Your task to perform on an android device: Open calendar and show me the fourth week of next month Image 0: 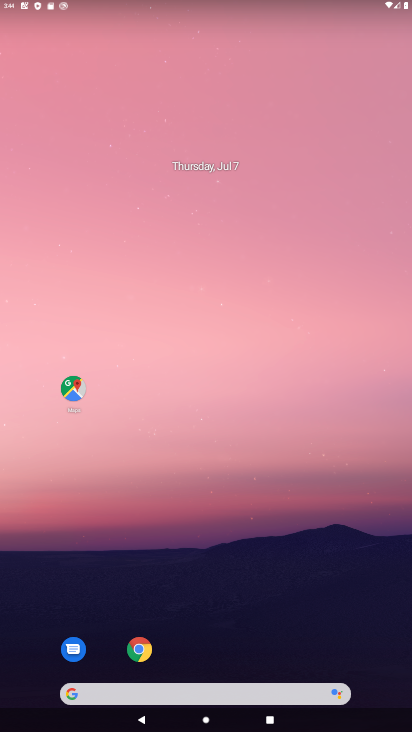
Step 0: drag from (370, 698) to (254, 0)
Your task to perform on an android device: Open calendar and show me the fourth week of next month Image 1: 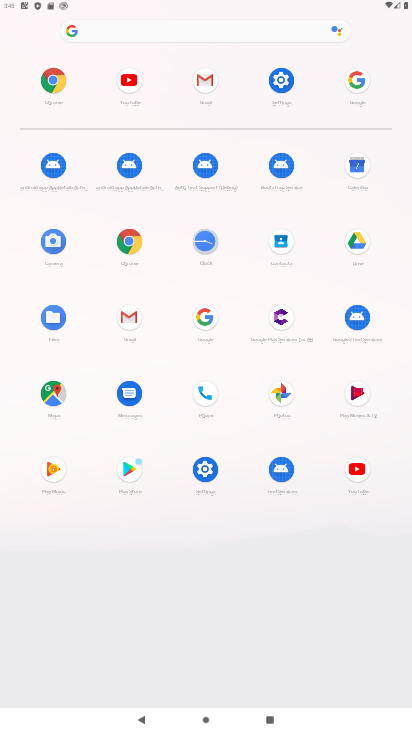
Step 1: click (343, 168)
Your task to perform on an android device: Open calendar and show me the fourth week of next month Image 2: 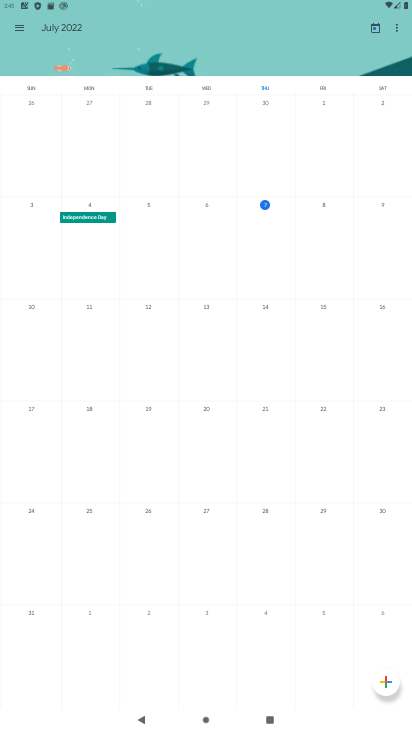
Step 2: drag from (264, 600) to (242, 148)
Your task to perform on an android device: Open calendar and show me the fourth week of next month Image 3: 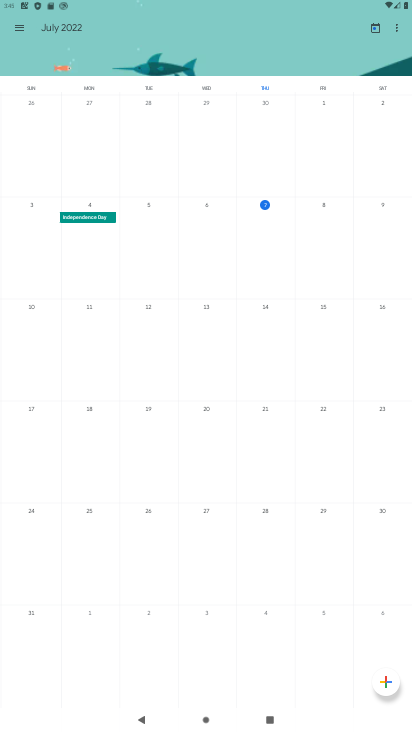
Step 3: drag from (341, 179) to (17, 234)
Your task to perform on an android device: Open calendar and show me the fourth week of next month Image 4: 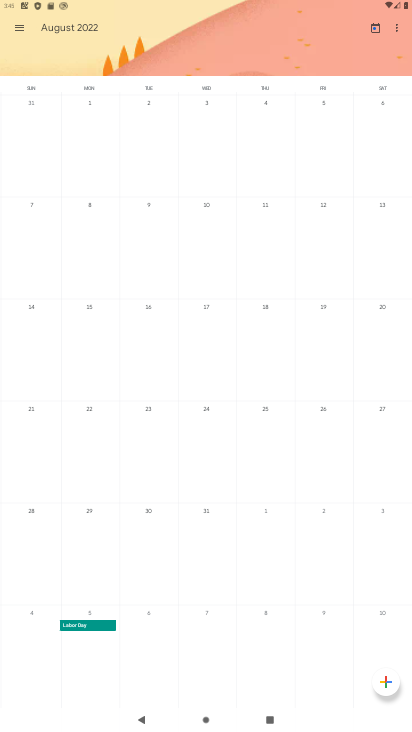
Step 4: click (28, 518)
Your task to perform on an android device: Open calendar and show me the fourth week of next month Image 5: 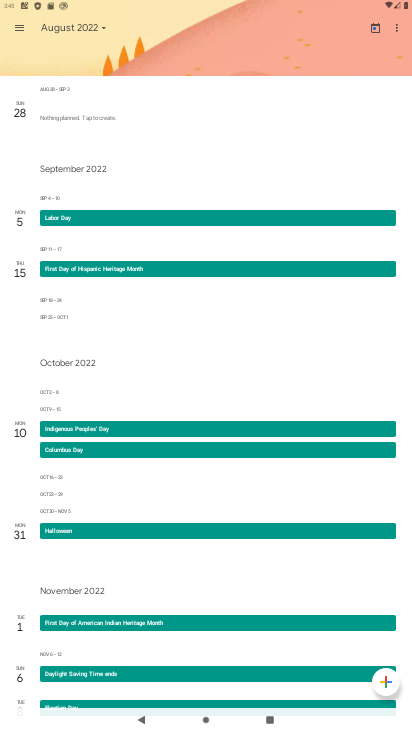
Step 5: task complete